Your task to perform on an android device: create a new album in the google photos Image 0: 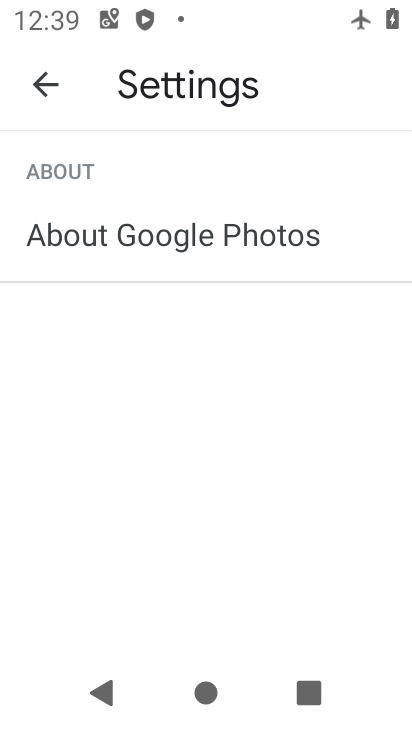
Step 0: press home button
Your task to perform on an android device: create a new album in the google photos Image 1: 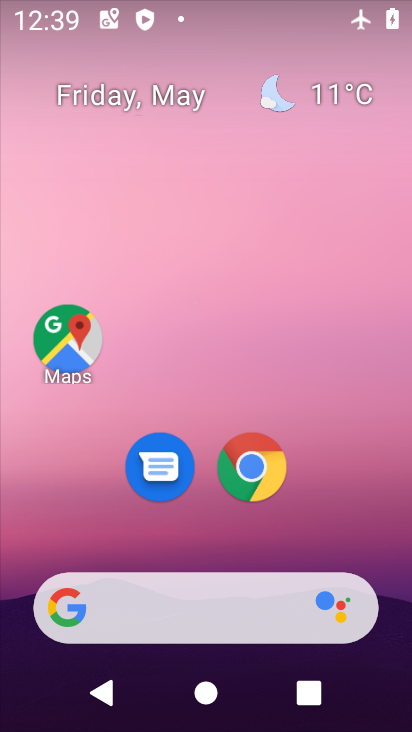
Step 1: drag from (370, 520) to (335, 232)
Your task to perform on an android device: create a new album in the google photos Image 2: 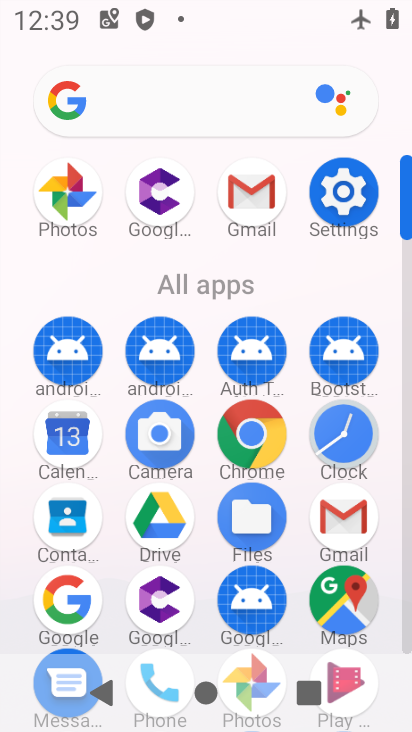
Step 2: click (241, 653)
Your task to perform on an android device: create a new album in the google photos Image 3: 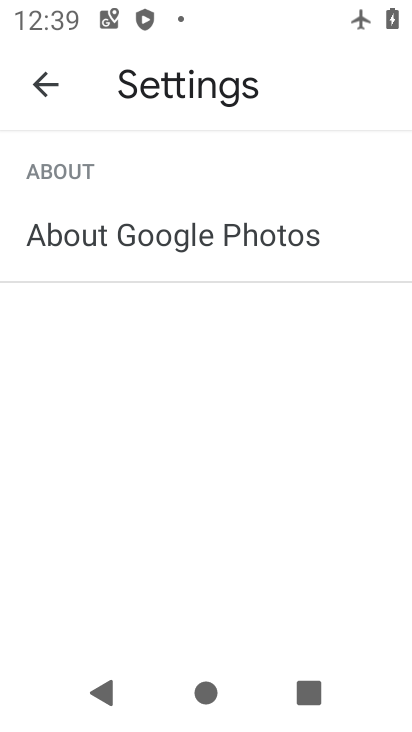
Step 3: click (36, 82)
Your task to perform on an android device: create a new album in the google photos Image 4: 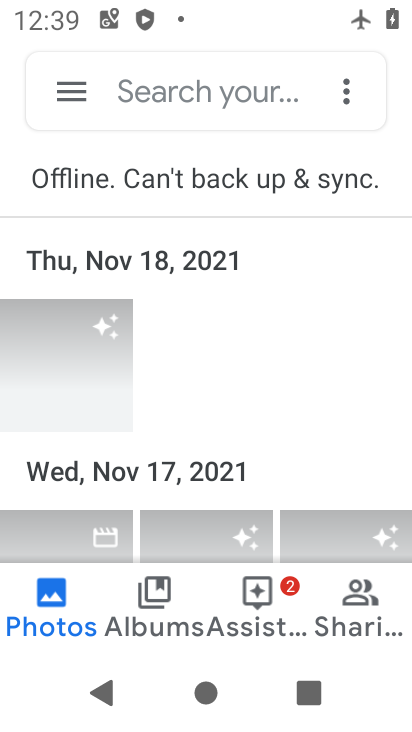
Step 4: drag from (230, 544) to (212, 309)
Your task to perform on an android device: create a new album in the google photos Image 5: 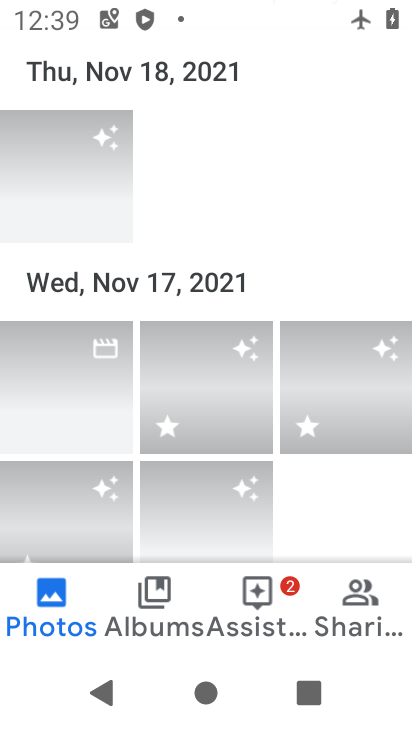
Step 5: click (170, 597)
Your task to perform on an android device: create a new album in the google photos Image 6: 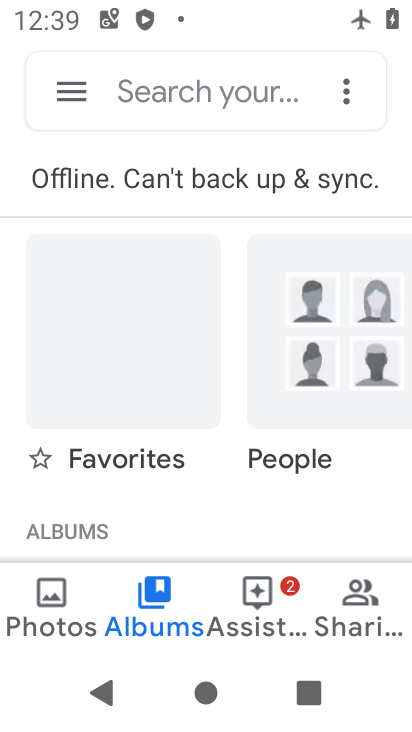
Step 6: drag from (194, 504) to (203, 292)
Your task to perform on an android device: create a new album in the google photos Image 7: 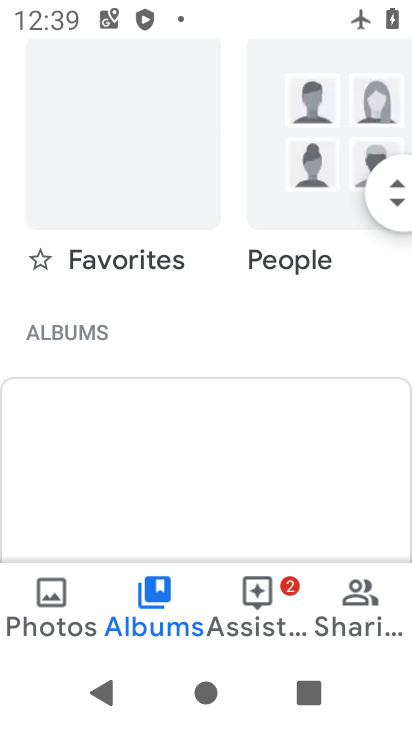
Step 7: drag from (203, 526) to (214, 282)
Your task to perform on an android device: create a new album in the google photos Image 8: 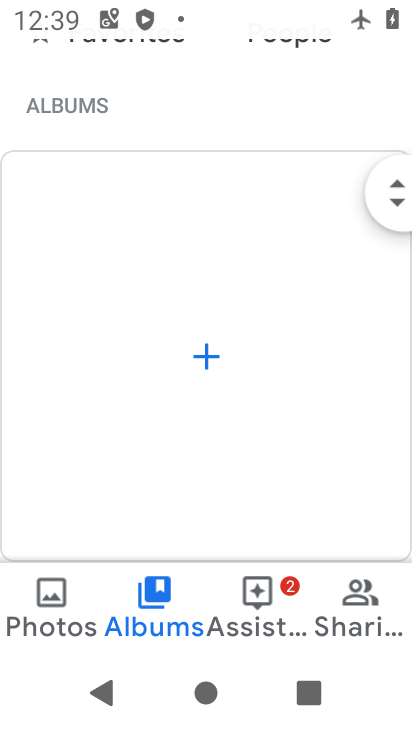
Step 8: click (200, 359)
Your task to perform on an android device: create a new album in the google photos Image 9: 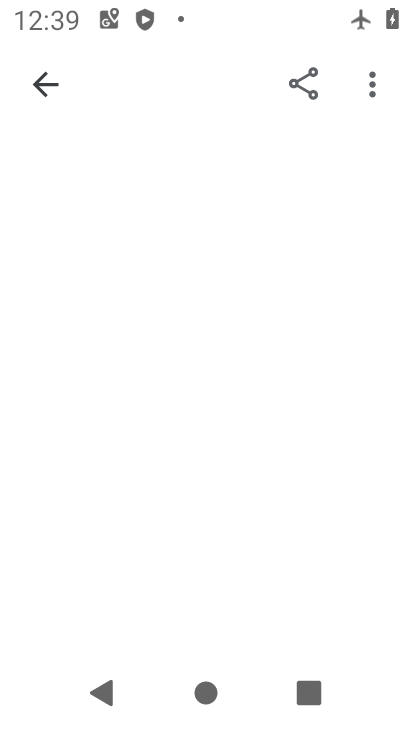
Step 9: click (200, 359)
Your task to perform on an android device: create a new album in the google photos Image 10: 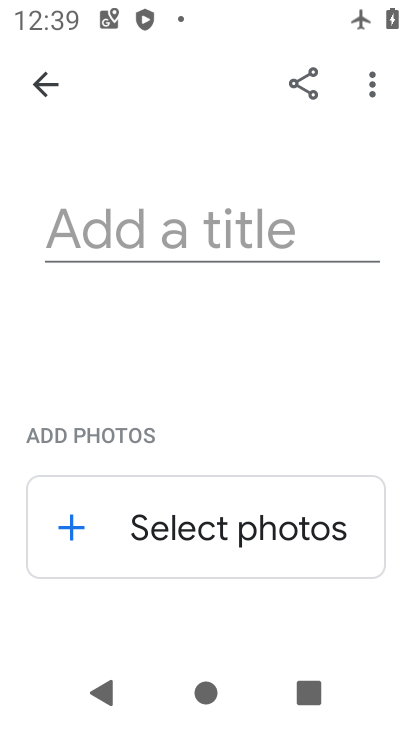
Step 10: click (152, 234)
Your task to perform on an android device: create a new album in the google photos Image 11: 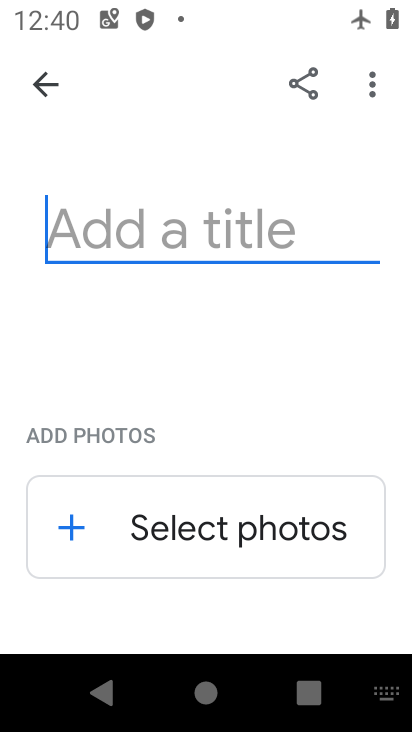
Step 11: type "bmw"
Your task to perform on an android device: create a new album in the google photos Image 12: 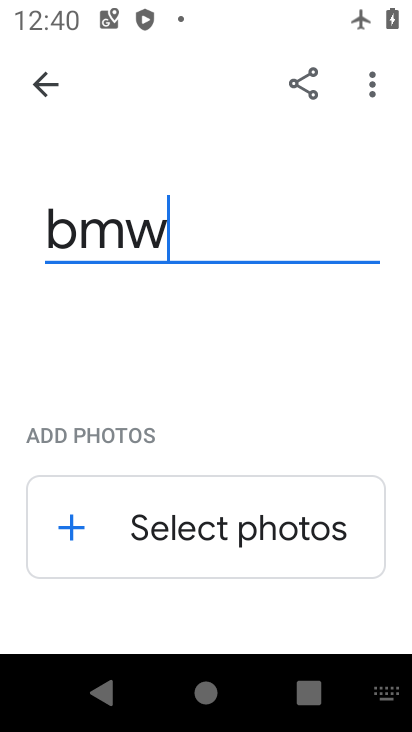
Step 12: click (81, 535)
Your task to perform on an android device: create a new album in the google photos Image 13: 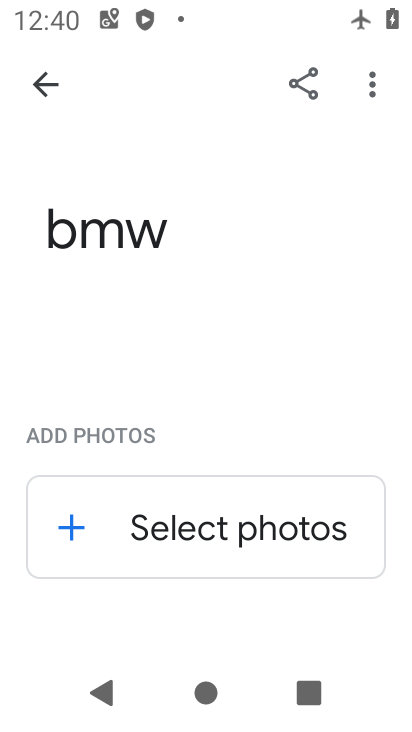
Step 13: click (63, 520)
Your task to perform on an android device: create a new album in the google photos Image 14: 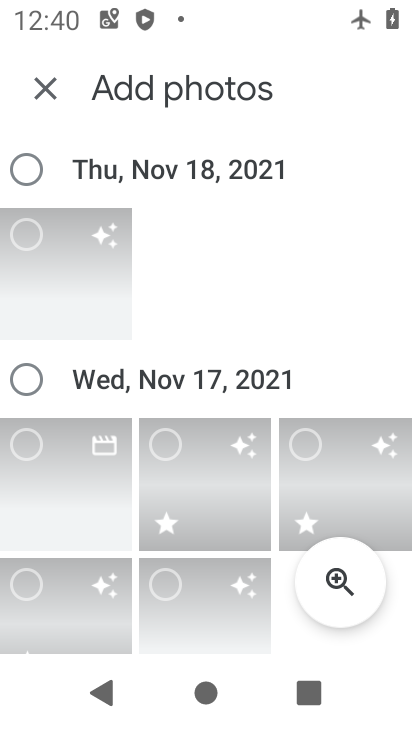
Step 14: click (33, 434)
Your task to perform on an android device: create a new album in the google photos Image 15: 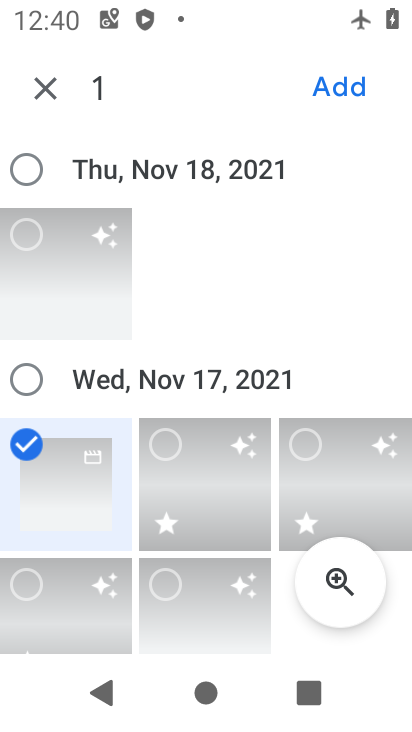
Step 15: task complete